Your task to perform on an android device: check storage Image 0: 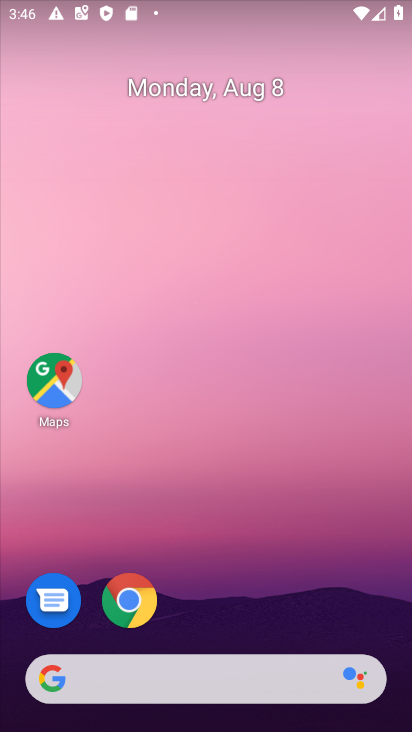
Step 0: drag from (404, 690) to (380, 153)
Your task to perform on an android device: check storage Image 1: 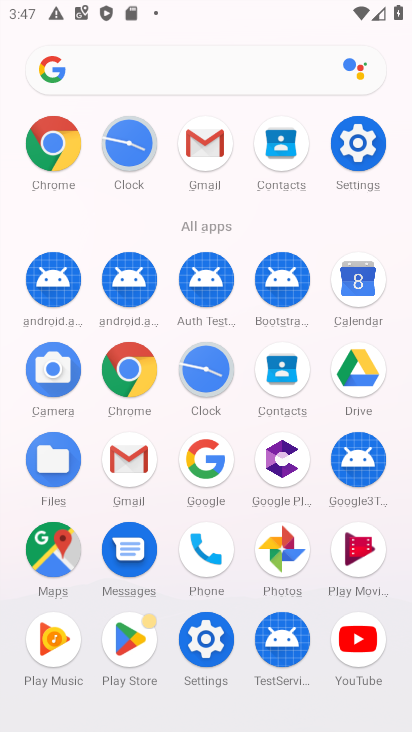
Step 1: click (346, 149)
Your task to perform on an android device: check storage Image 2: 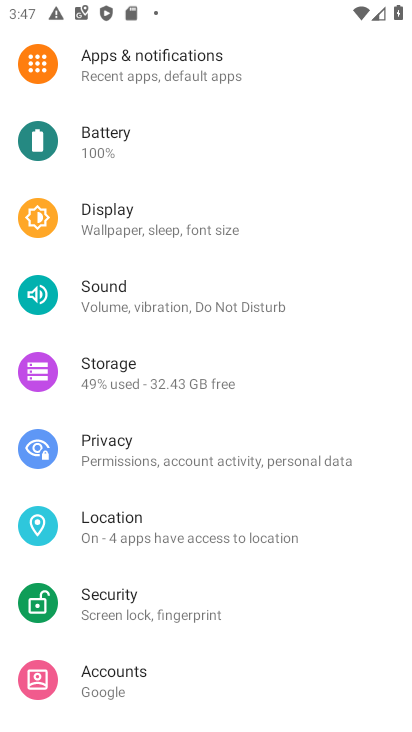
Step 2: drag from (254, 163) to (293, 568)
Your task to perform on an android device: check storage Image 3: 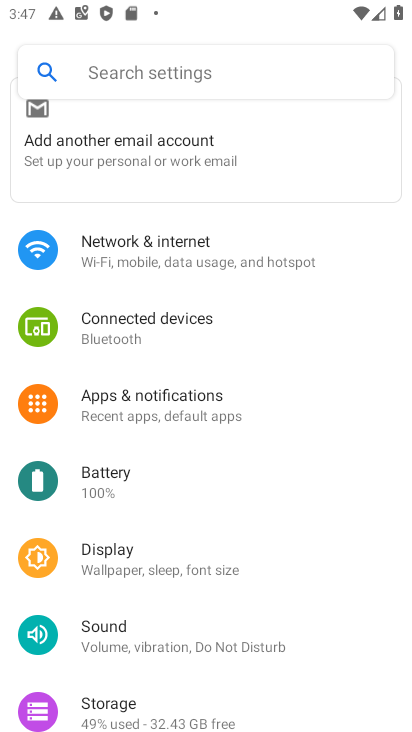
Step 3: drag from (321, 676) to (294, 164)
Your task to perform on an android device: check storage Image 4: 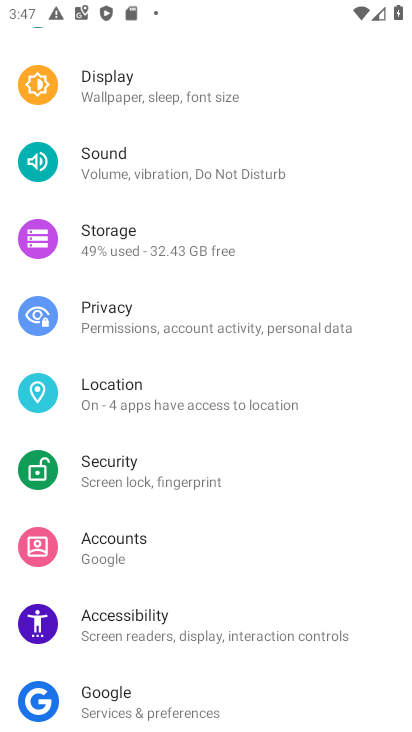
Step 4: click (91, 231)
Your task to perform on an android device: check storage Image 5: 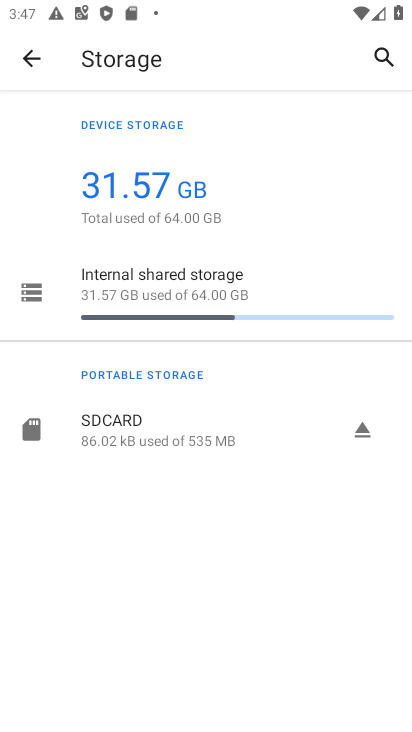
Step 5: task complete